Your task to perform on an android device: find photos in the google photos app Image 0: 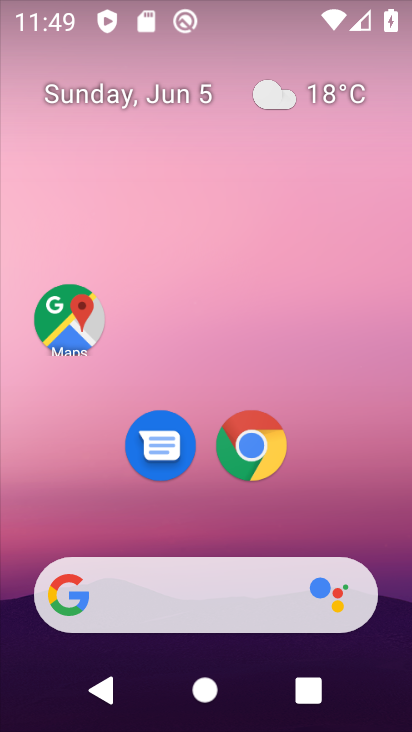
Step 0: drag from (284, 600) to (201, 4)
Your task to perform on an android device: find photos in the google photos app Image 1: 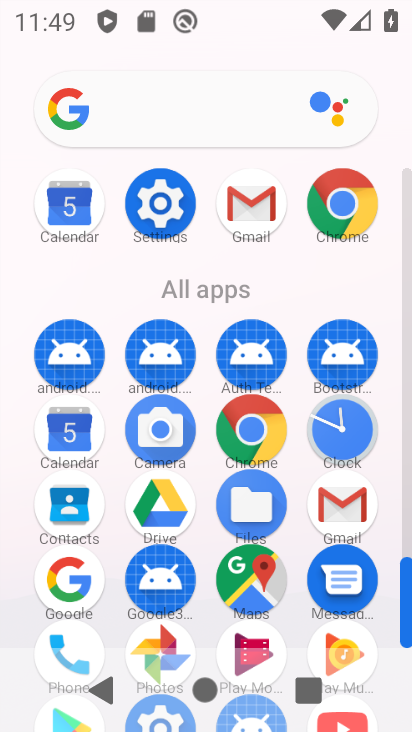
Step 1: drag from (293, 609) to (275, 200)
Your task to perform on an android device: find photos in the google photos app Image 2: 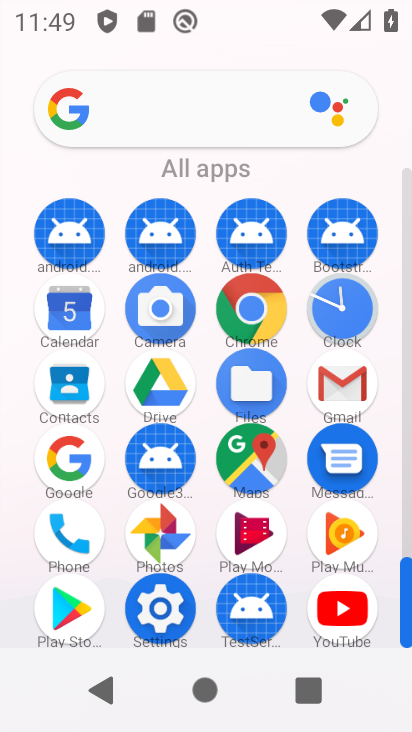
Step 2: click (164, 552)
Your task to perform on an android device: find photos in the google photos app Image 3: 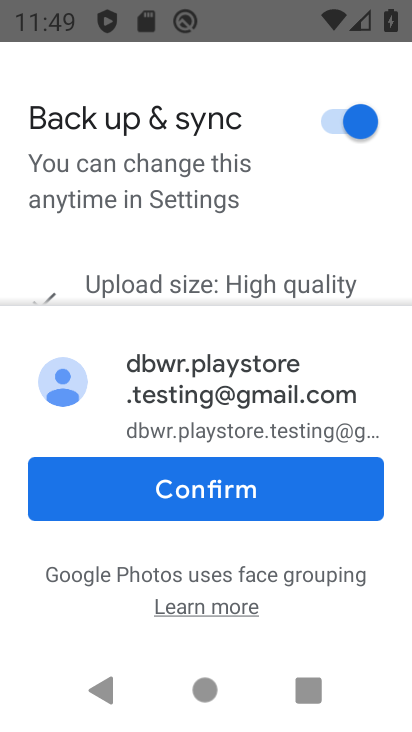
Step 3: click (246, 492)
Your task to perform on an android device: find photos in the google photos app Image 4: 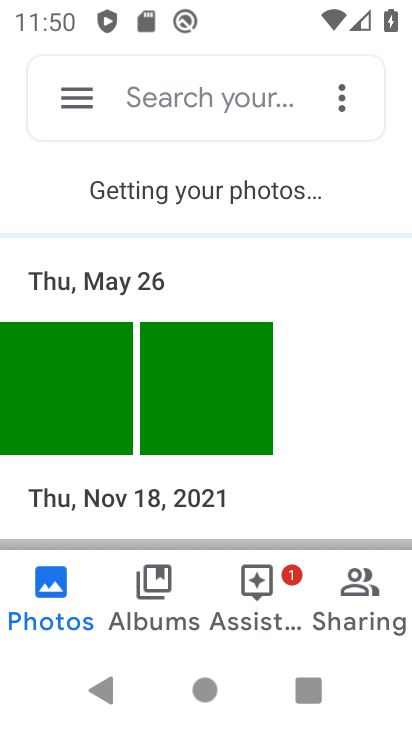
Step 4: task complete